Your task to perform on an android device: Go to CNN.com Image 0: 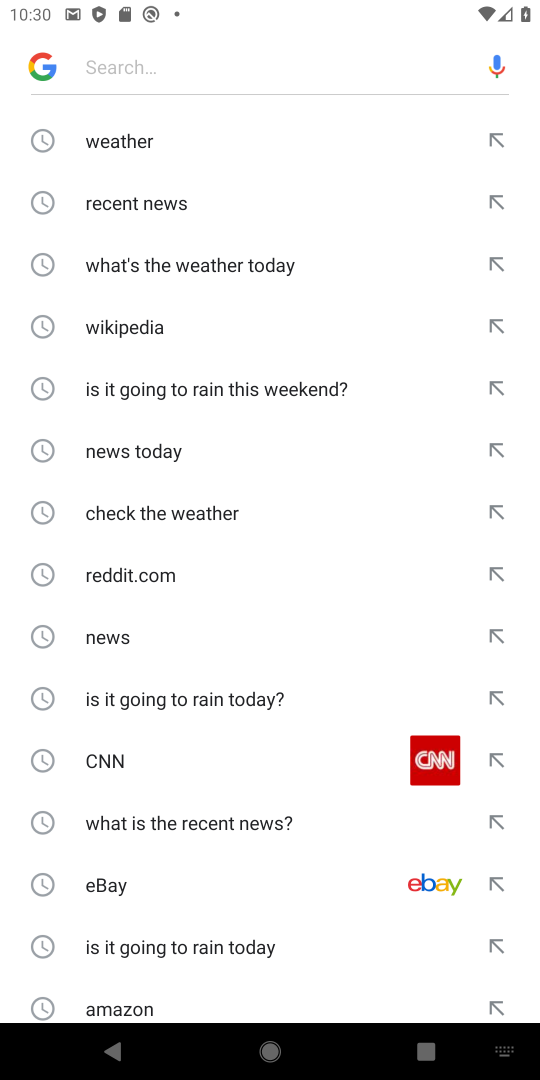
Step 0: click (90, 762)
Your task to perform on an android device: Go to CNN.com Image 1: 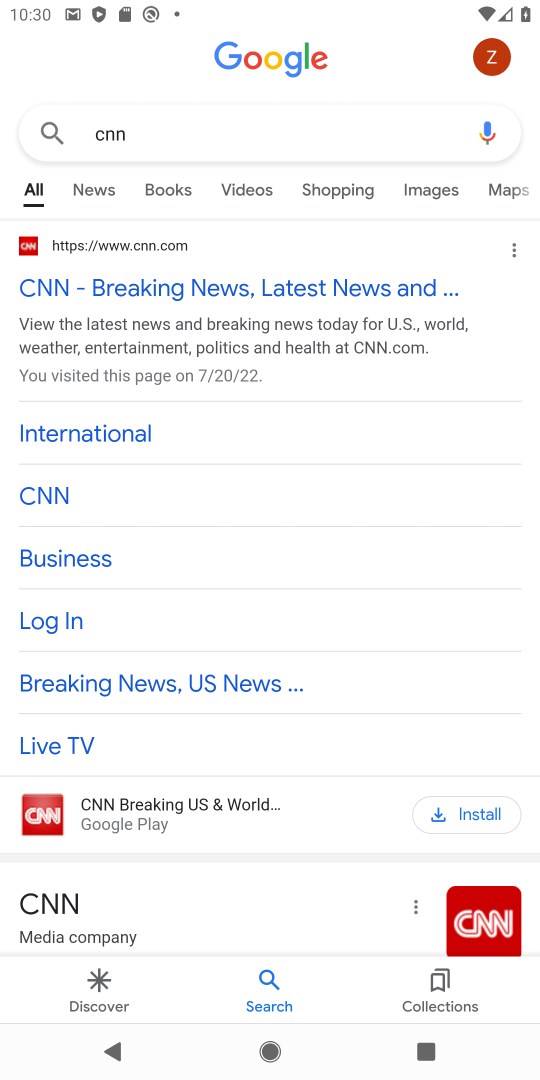
Step 1: click (208, 298)
Your task to perform on an android device: Go to CNN.com Image 2: 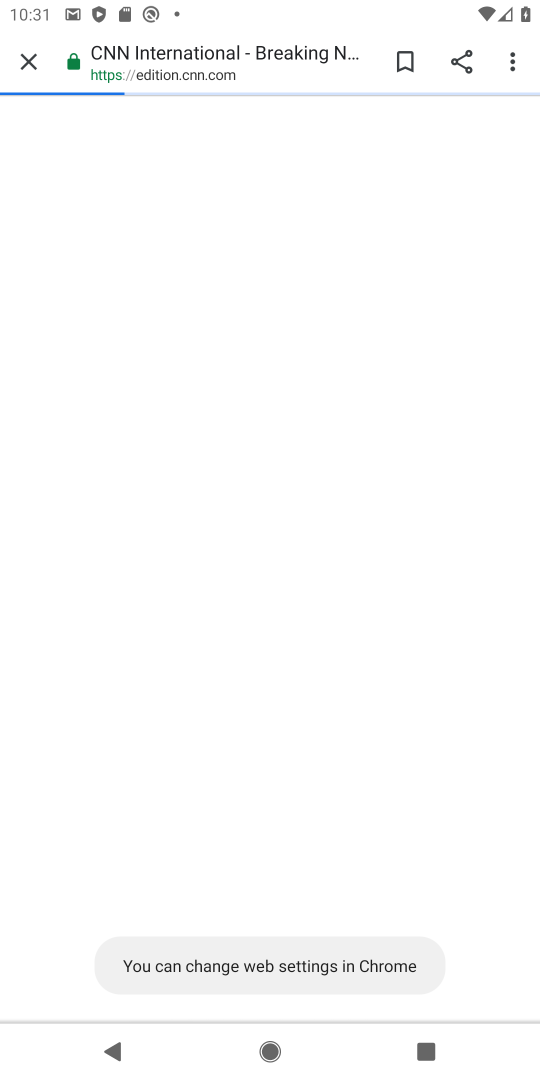
Step 2: task complete